Your task to perform on an android device: turn on notifications settings in the gmail app Image 0: 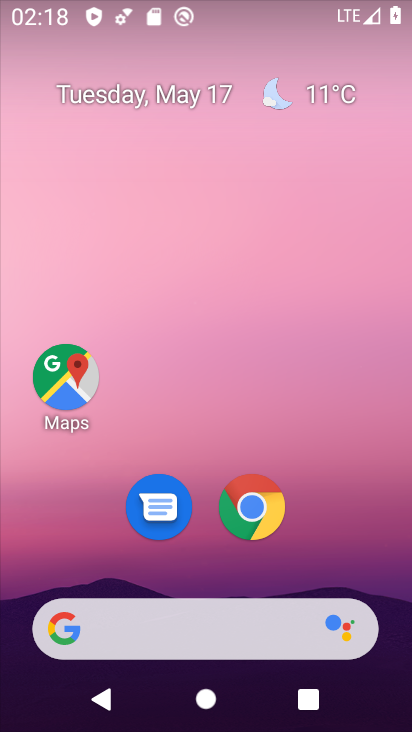
Step 0: drag from (215, 548) to (260, 95)
Your task to perform on an android device: turn on notifications settings in the gmail app Image 1: 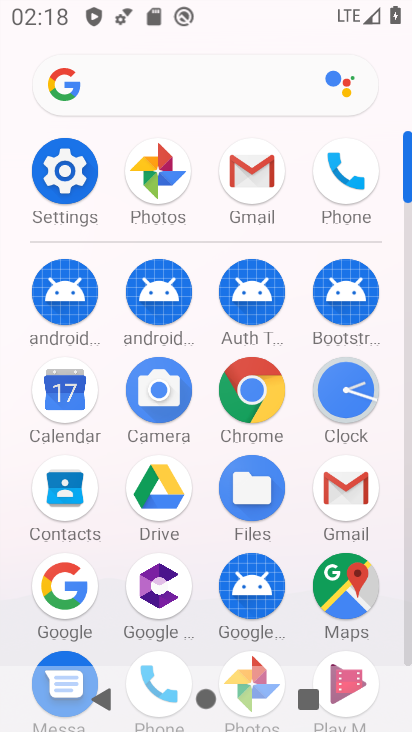
Step 1: click (251, 188)
Your task to perform on an android device: turn on notifications settings in the gmail app Image 2: 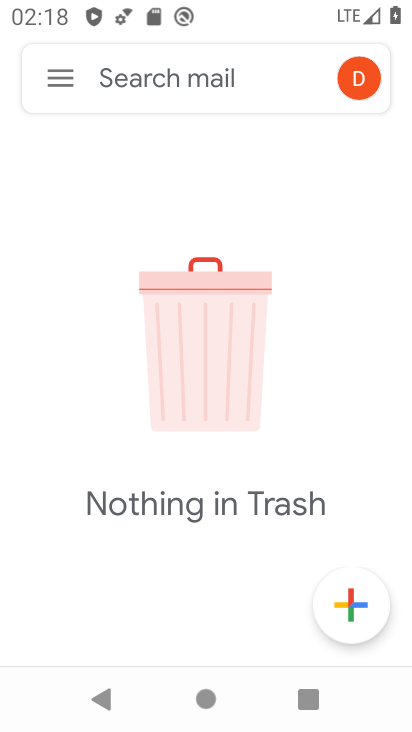
Step 2: click (54, 98)
Your task to perform on an android device: turn on notifications settings in the gmail app Image 3: 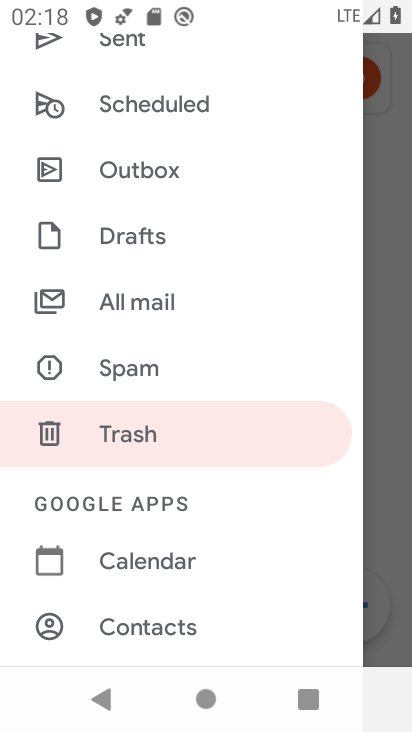
Step 3: drag from (84, 609) to (151, 315)
Your task to perform on an android device: turn on notifications settings in the gmail app Image 4: 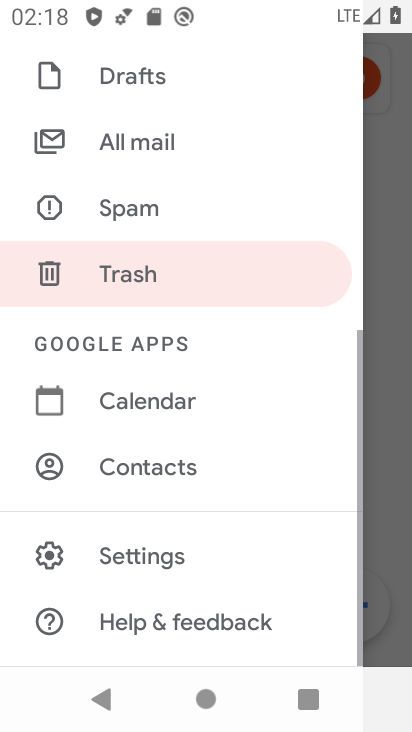
Step 4: click (183, 581)
Your task to perform on an android device: turn on notifications settings in the gmail app Image 5: 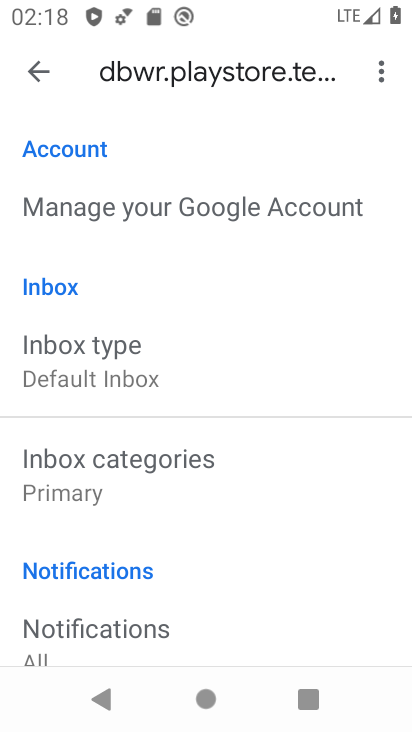
Step 5: click (146, 616)
Your task to perform on an android device: turn on notifications settings in the gmail app Image 6: 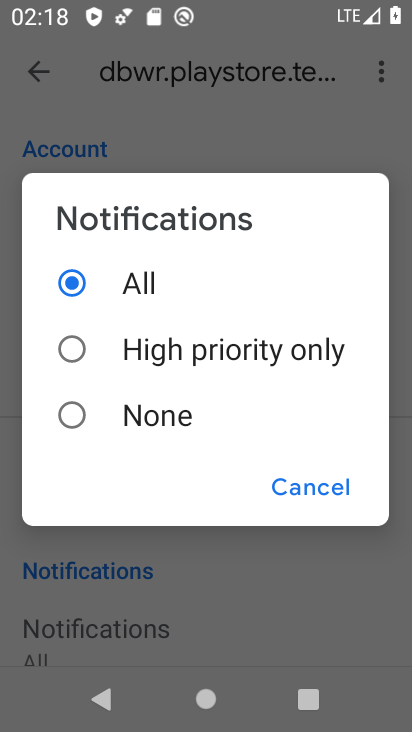
Step 6: task complete